Your task to perform on an android device: Open Wikipedia Image 0: 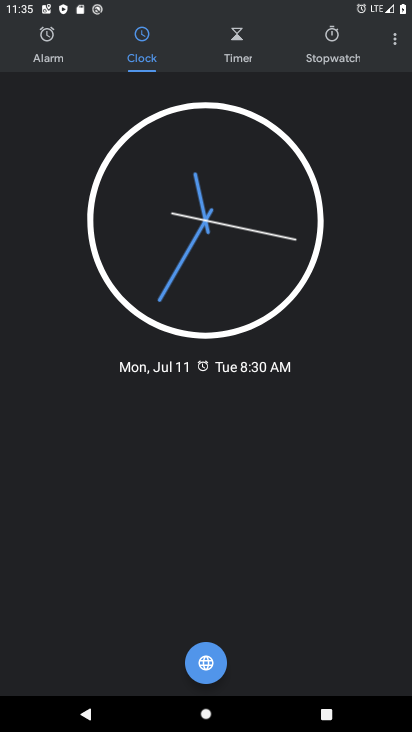
Step 0: press home button
Your task to perform on an android device: Open Wikipedia Image 1: 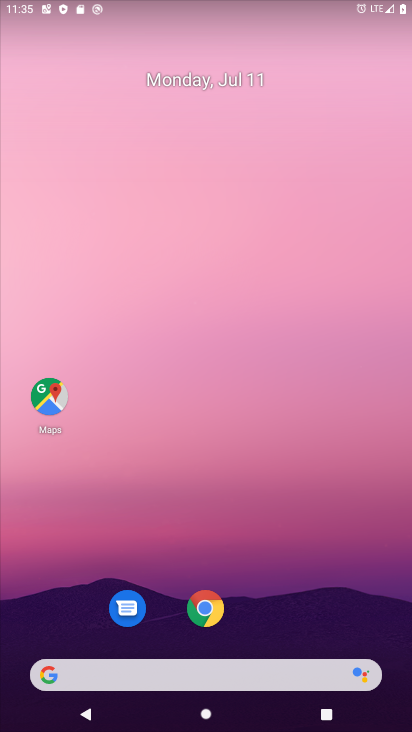
Step 1: drag from (43, 684) to (215, 182)
Your task to perform on an android device: Open Wikipedia Image 2: 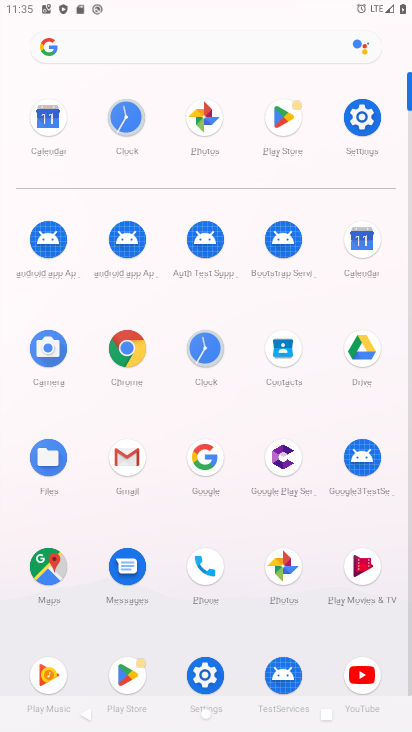
Step 2: click (86, 40)
Your task to perform on an android device: Open Wikipedia Image 3: 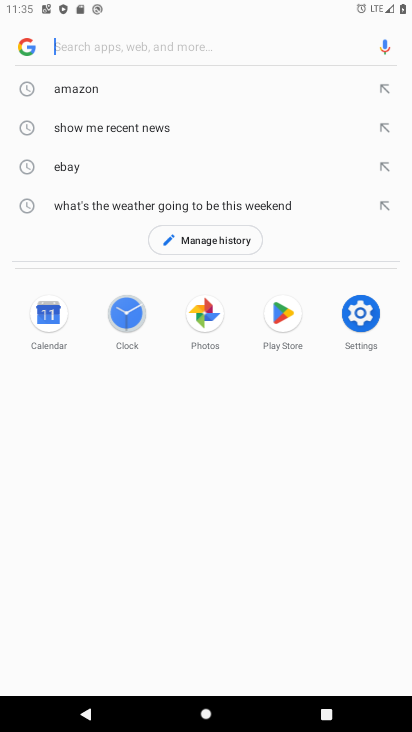
Step 3: type "Wikipedia"
Your task to perform on an android device: Open Wikipedia Image 4: 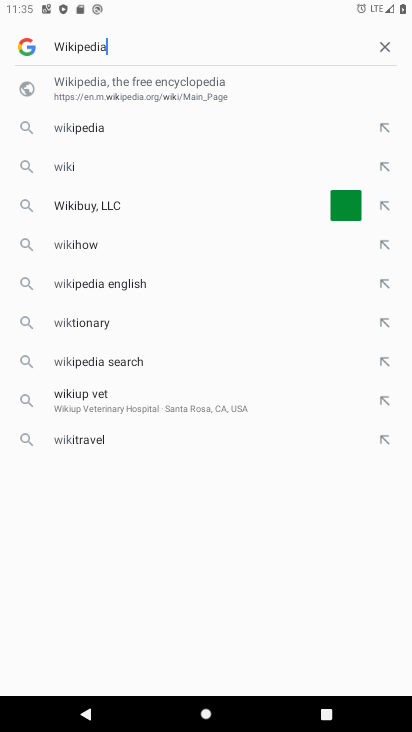
Step 4: type ""
Your task to perform on an android device: Open Wikipedia Image 5: 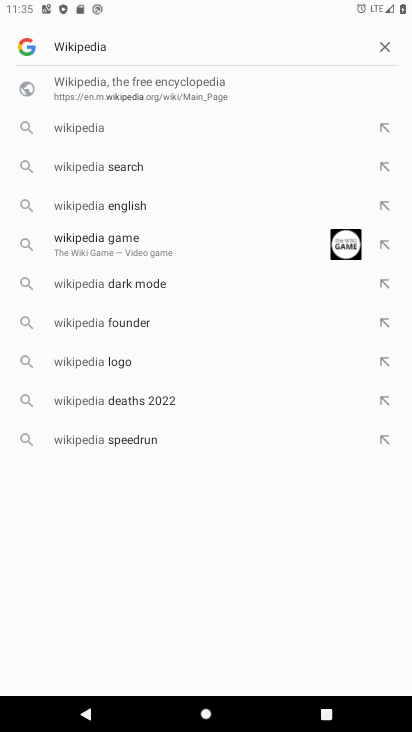
Step 5: click (57, 129)
Your task to perform on an android device: Open Wikipedia Image 6: 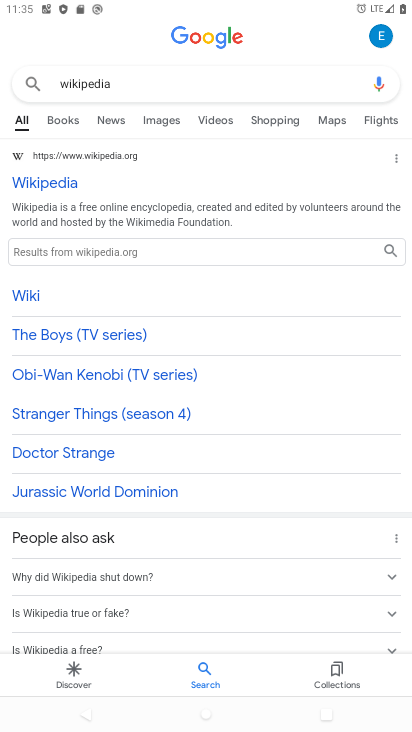
Step 6: task complete